Your task to perform on an android device: toggle pop-ups in chrome Image 0: 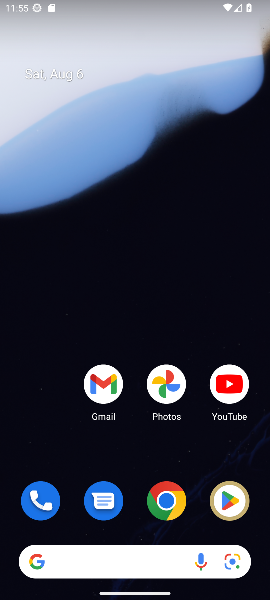
Step 0: click (164, 497)
Your task to perform on an android device: toggle pop-ups in chrome Image 1: 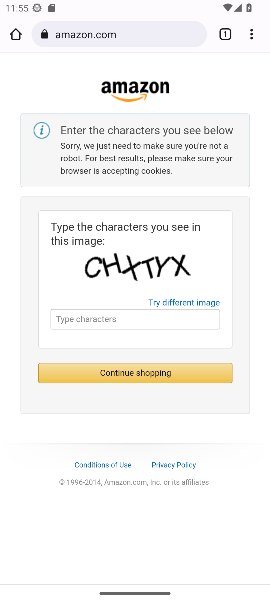
Step 1: click (251, 32)
Your task to perform on an android device: toggle pop-ups in chrome Image 2: 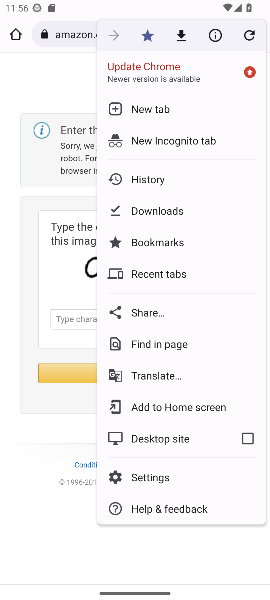
Step 2: click (146, 473)
Your task to perform on an android device: toggle pop-ups in chrome Image 3: 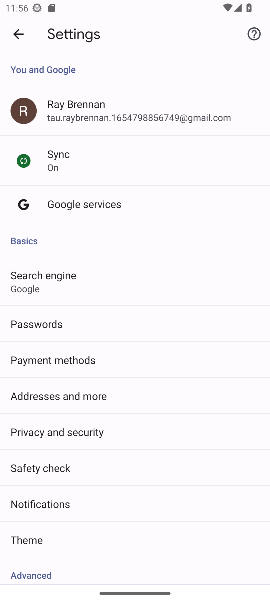
Step 3: click (97, 250)
Your task to perform on an android device: toggle pop-ups in chrome Image 4: 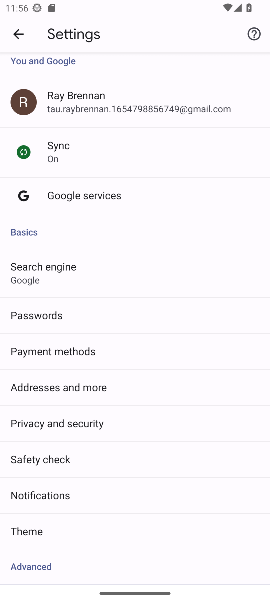
Step 4: drag from (67, 350) to (83, 220)
Your task to perform on an android device: toggle pop-ups in chrome Image 5: 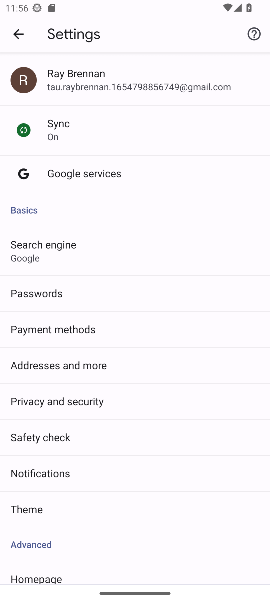
Step 5: drag from (83, 495) to (85, 221)
Your task to perform on an android device: toggle pop-ups in chrome Image 6: 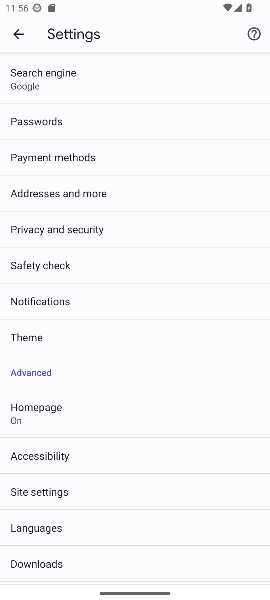
Step 6: click (62, 488)
Your task to perform on an android device: toggle pop-ups in chrome Image 7: 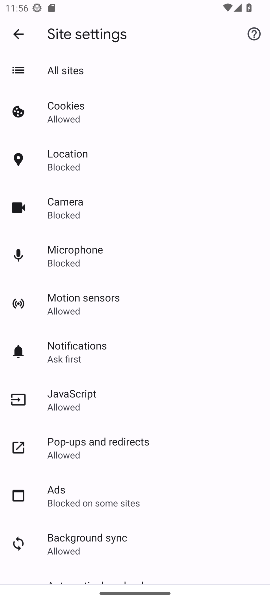
Step 7: click (73, 445)
Your task to perform on an android device: toggle pop-ups in chrome Image 8: 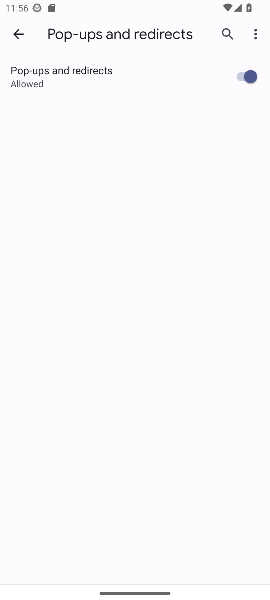
Step 8: click (239, 83)
Your task to perform on an android device: toggle pop-ups in chrome Image 9: 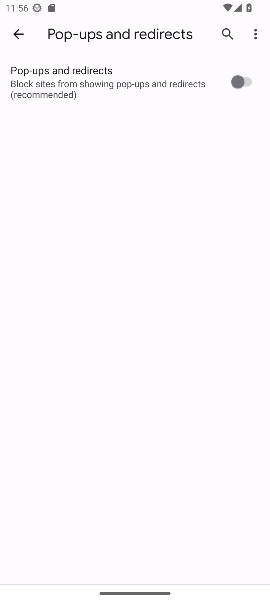
Step 9: task complete